Your task to perform on an android device: Play the last video I watched on Youtube Image 0: 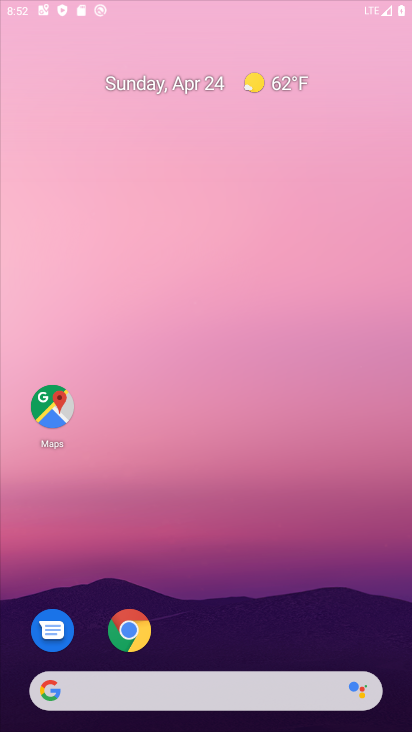
Step 0: click (340, 22)
Your task to perform on an android device: Play the last video I watched on Youtube Image 1: 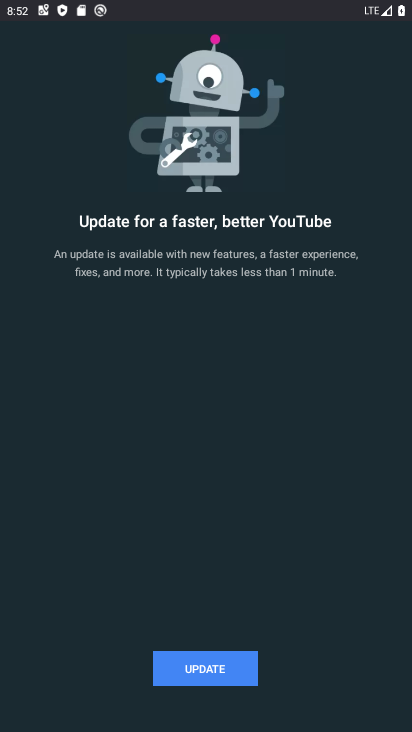
Step 1: click (247, 660)
Your task to perform on an android device: Play the last video I watched on Youtube Image 2: 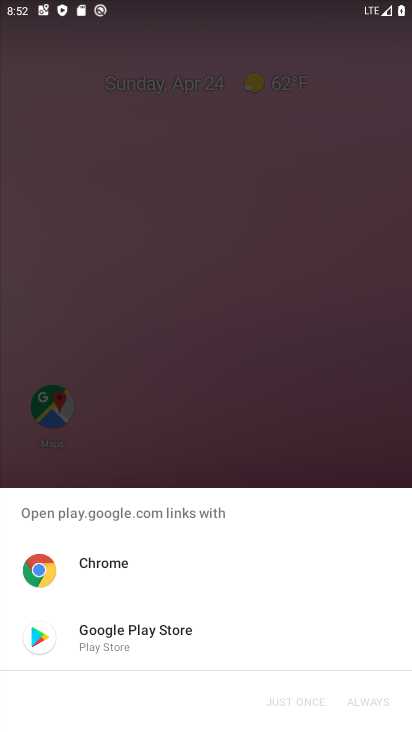
Step 2: click (114, 643)
Your task to perform on an android device: Play the last video I watched on Youtube Image 3: 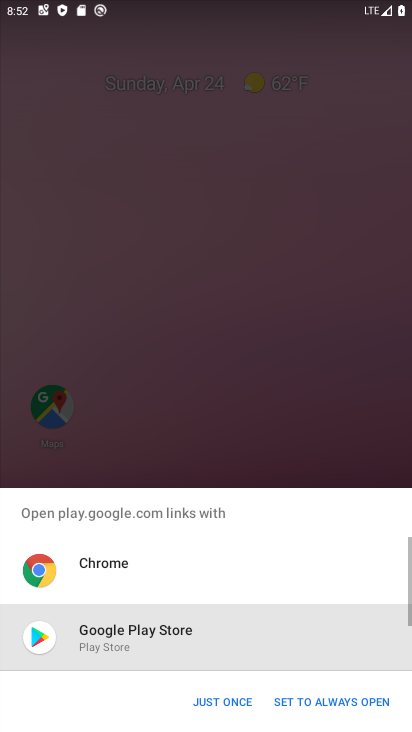
Step 3: click (203, 695)
Your task to perform on an android device: Play the last video I watched on Youtube Image 4: 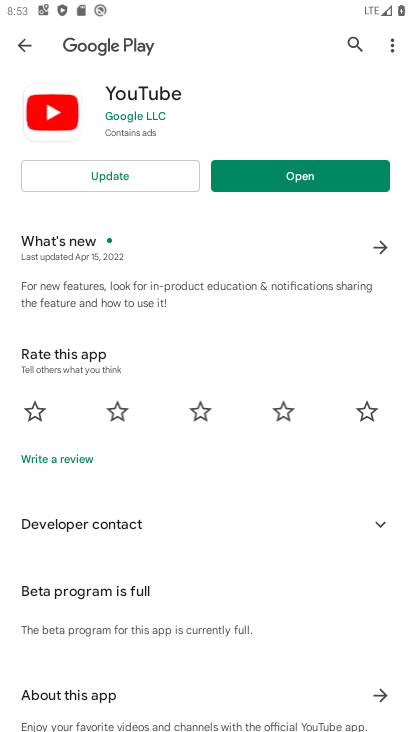
Step 4: click (132, 173)
Your task to perform on an android device: Play the last video I watched on Youtube Image 5: 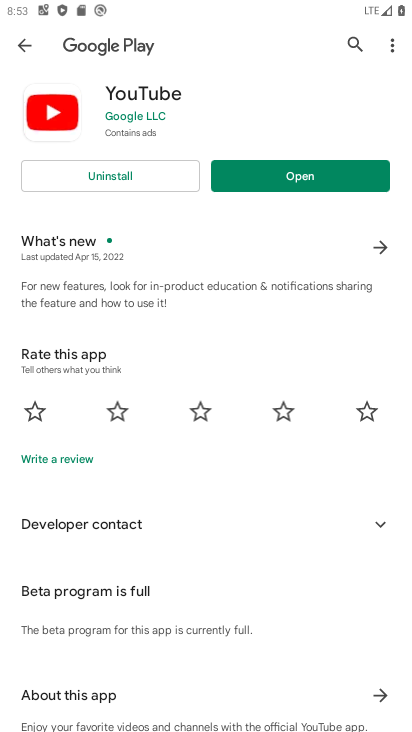
Step 5: click (251, 169)
Your task to perform on an android device: Play the last video I watched on Youtube Image 6: 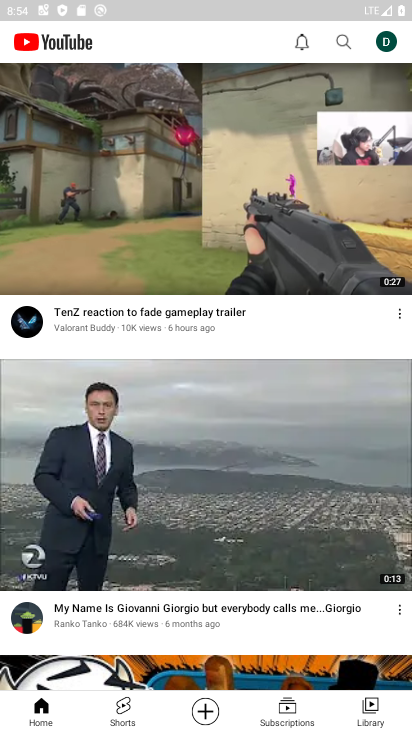
Step 6: click (371, 710)
Your task to perform on an android device: Play the last video I watched on Youtube Image 7: 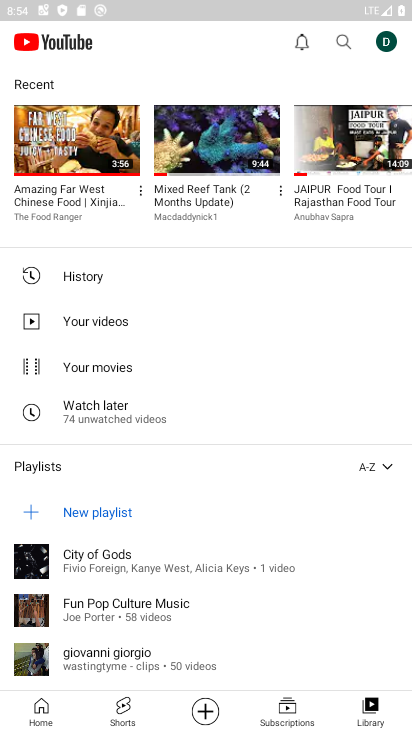
Step 7: click (68, 145)
Your task to perform on an android device: Play the last video I watched on Youtube Image 8: 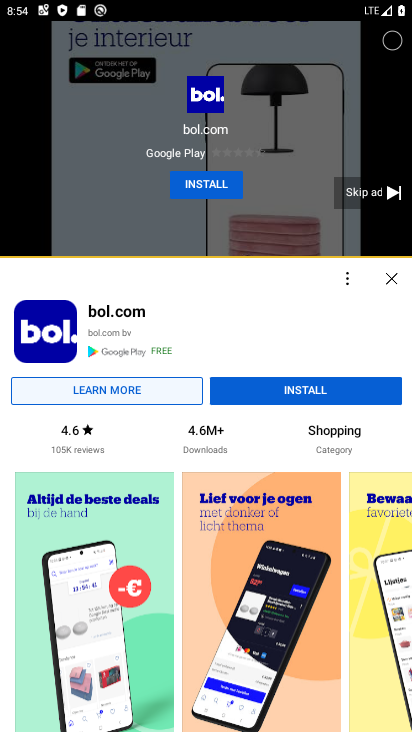
Step 8: click (387, 196)
Your task to perform on an android device: Play the last video I watched on Youtube Image 9: 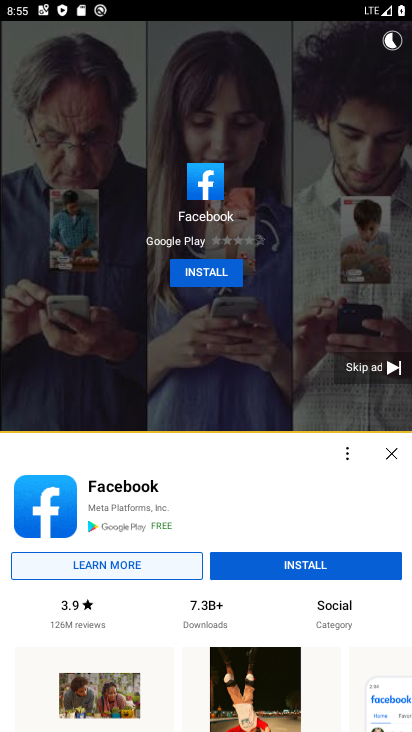
Step 9: click (347, 365)
Your task to perform on an android device: Play the last video I watched on Youtube Image 10: 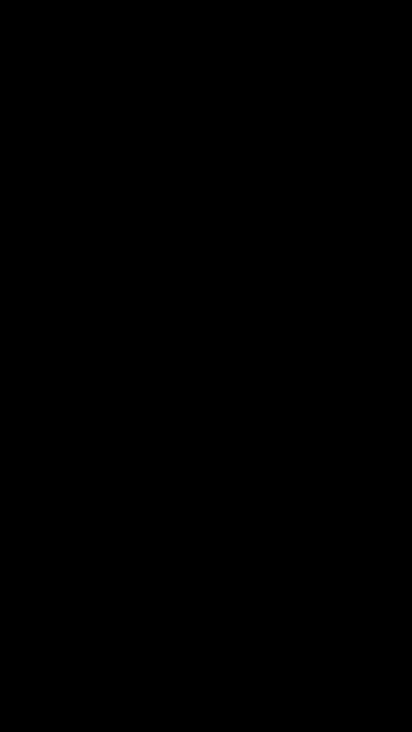
Step 10: task complete